Your task to perform on an android device: Add apple airpods to the cart on bestbuy, then select checkout. Image 0: 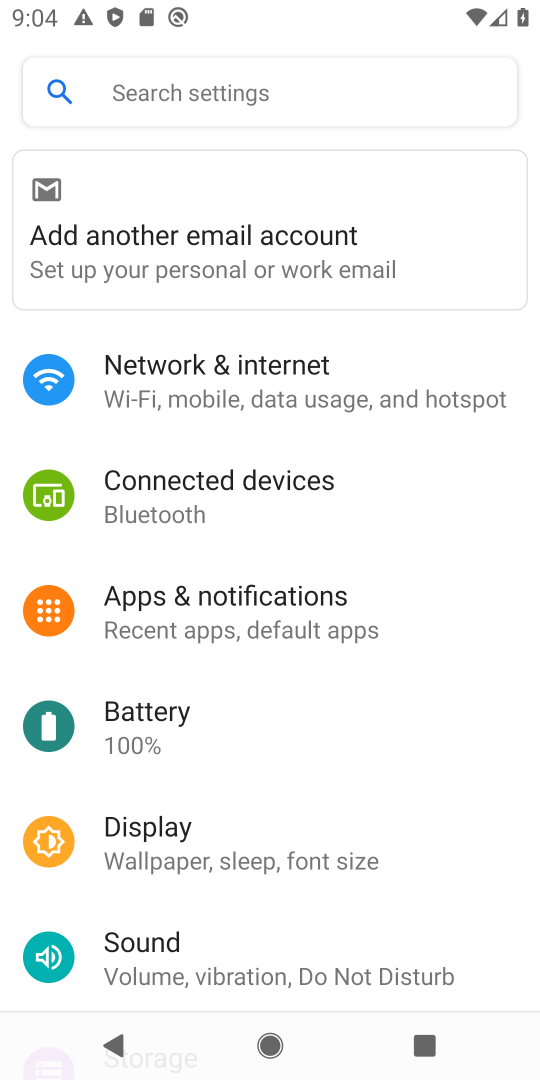
Step 0: press home button
Your task to perform on an android device: Add apple airpods to the cart on bestbuy, then select checkout. Image 1: 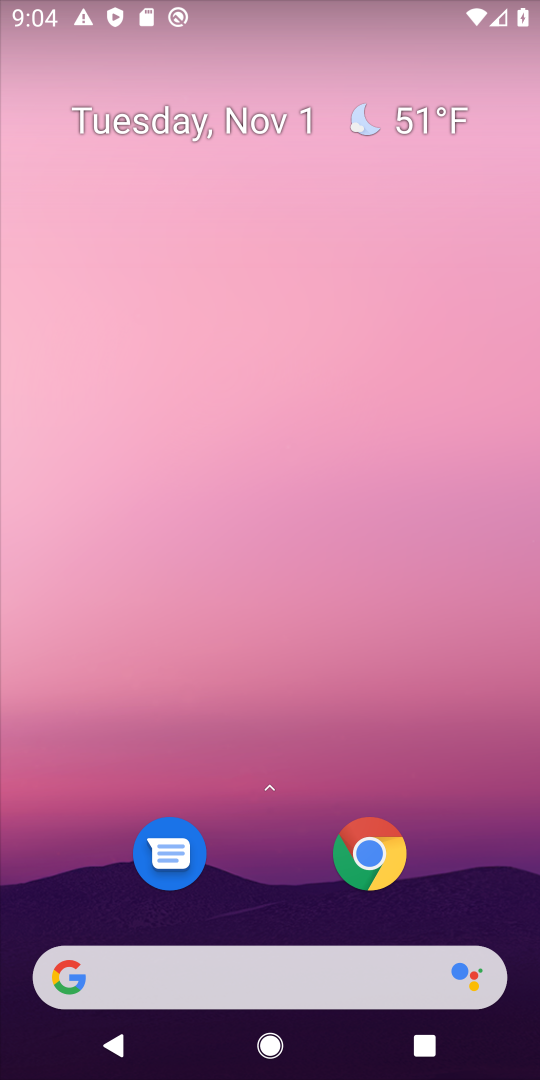
Step 1: click (328, 964)
Your task to perform on an android device: Add apple airpods to the cart on bestbuy, then select checkout. Image 2: 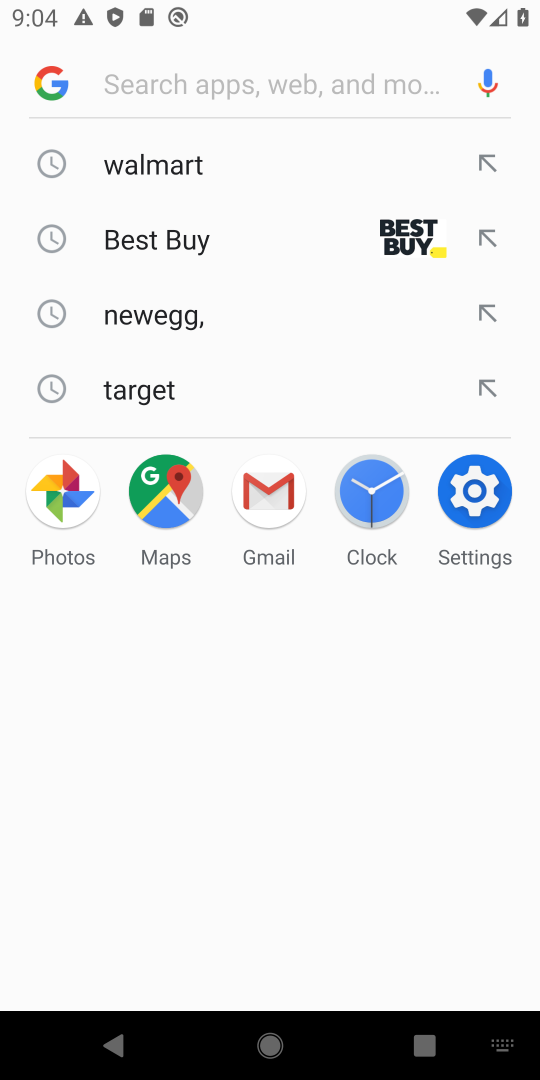
Step 2: type "bestbuy"
Your task to perform on an android device: Add apple airpods to the cart on bestbuy, then select checkout. Image 3: 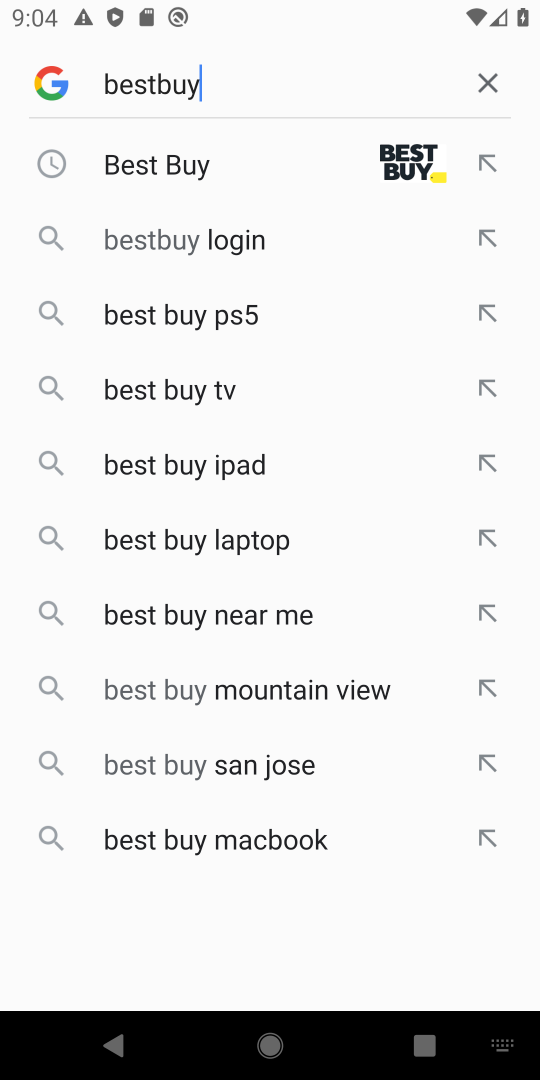
Step 3: click (199, 180)
Your task to perform on an android device: Add apple airpods to the cart on bestbuy, then select checkout. Image 4: 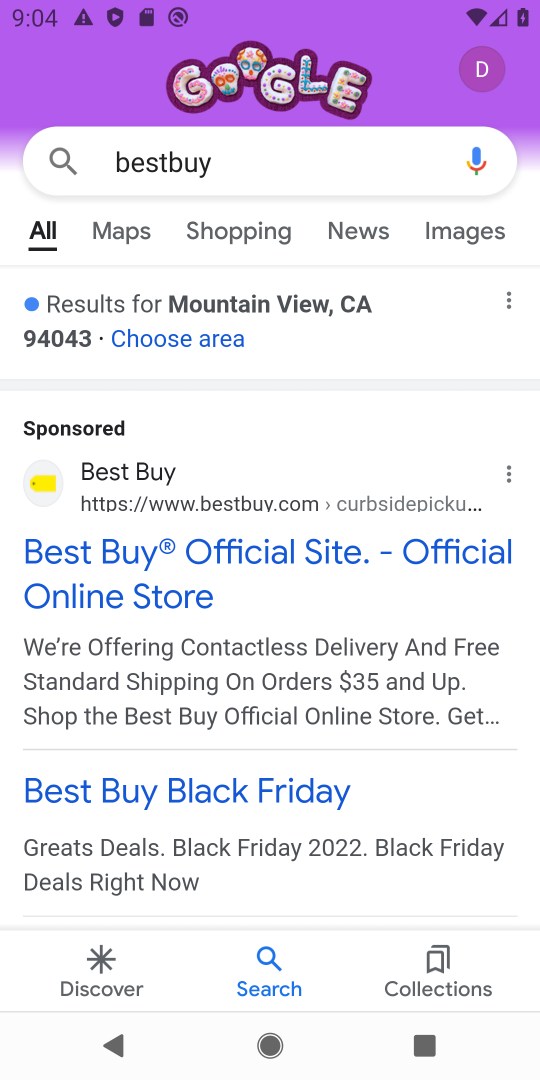
Step 4: click (145, 563)
Your task to perform on an android device: Add apple airpods to the cart on bestbuy, then select checkout. Image 5: 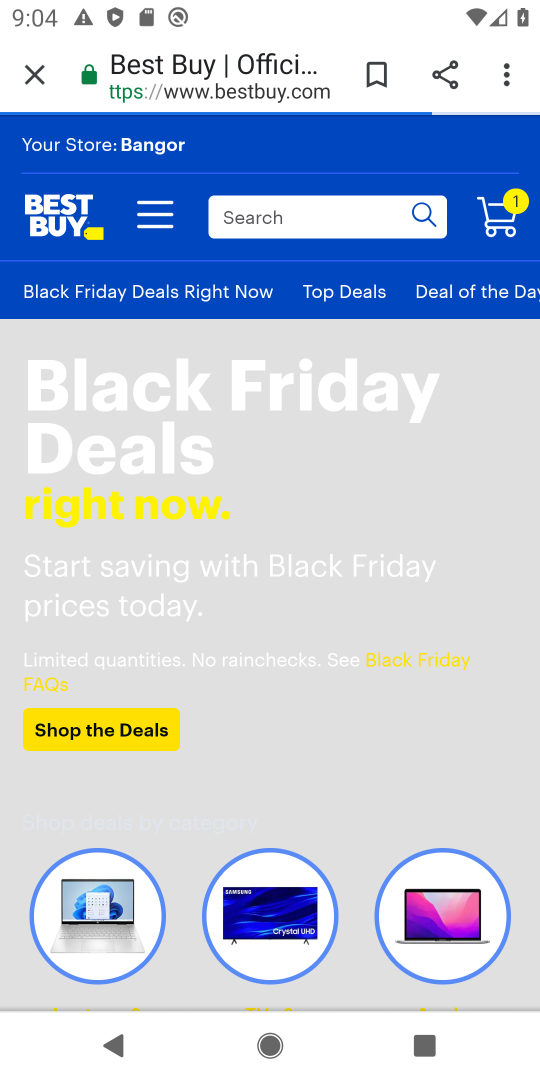
Step 5: click (299, 210)
Your task to perform on an android device: Add apple airpods to the cart on bestbuy, then select checkout. Image 6: 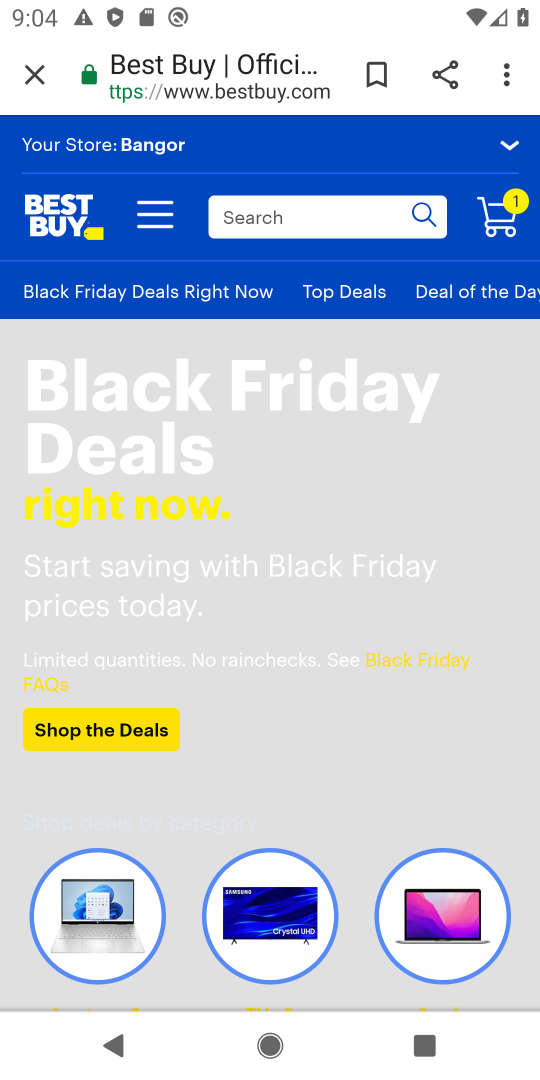
Step 6: type "apple airpods"
Your task to perform on an android device: Add apple airpods to the cart on bestbuy, then select checkout. Image 7: 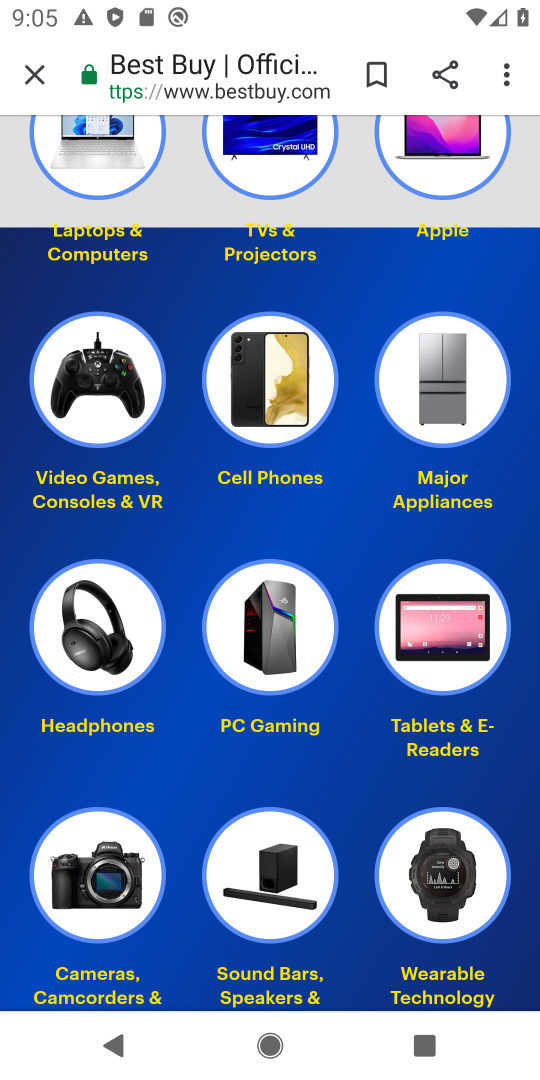
Step 7: task complete